Your task to perform on an android device: Play the last video I watched on Youtube Image 0: 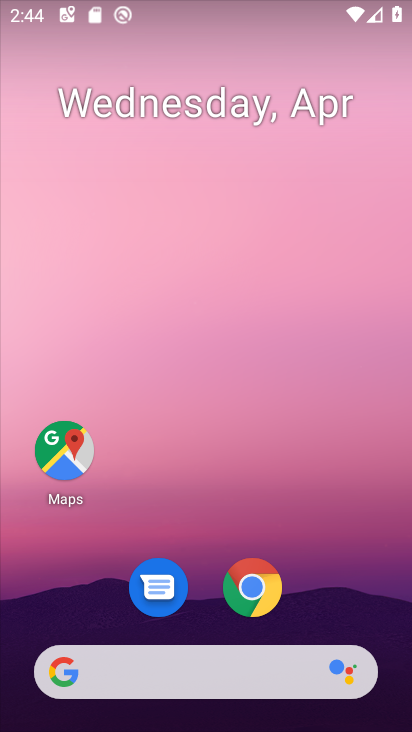
Step 0: drag from (387, 613) to (315, 62)
Your task to perform on an android device: Play the last video I watched on Youtube Image 1: 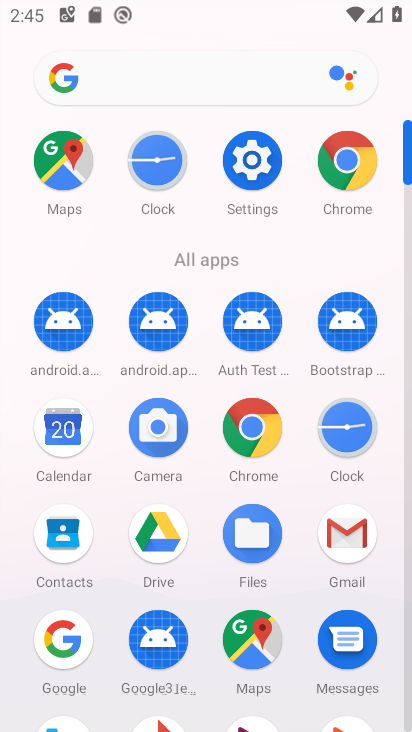
Step 1: click (406, 719)
Your task to perform on an android device: Play the last video I watched on Youtube Image 2: 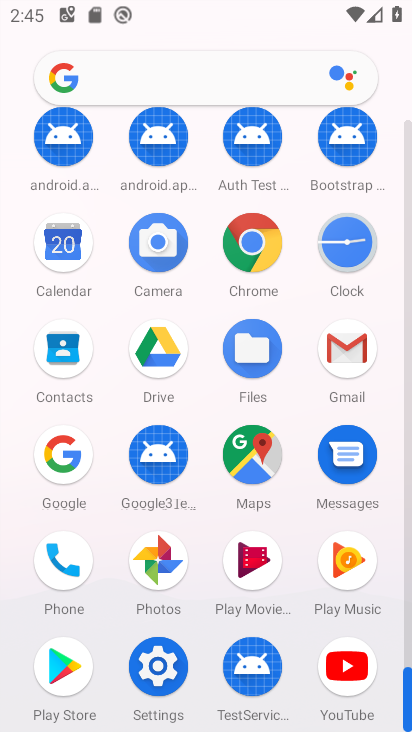
Step 2: click (363, 668)
Your task to perform on an android device: Play the last video I watched on Youtube Image 3: 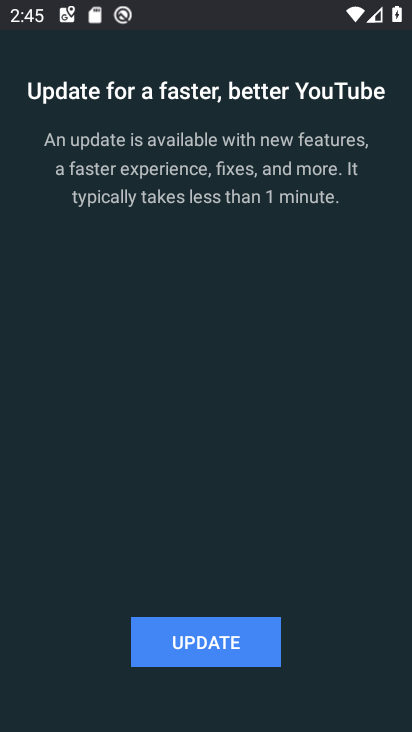
Step 3: click (222, 649)
Your task to perform on an android device: Play the last video I watched on Youtube Image 4: 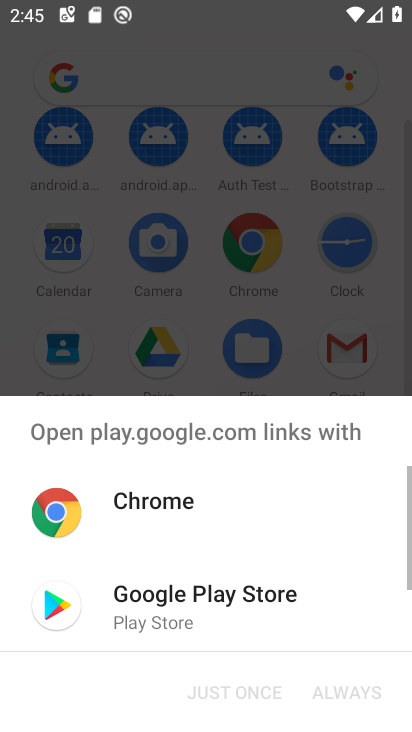
Step 4: click (139, 572)
Your task to perform on an android device: Play the last video I watched on Youtube Image 5: 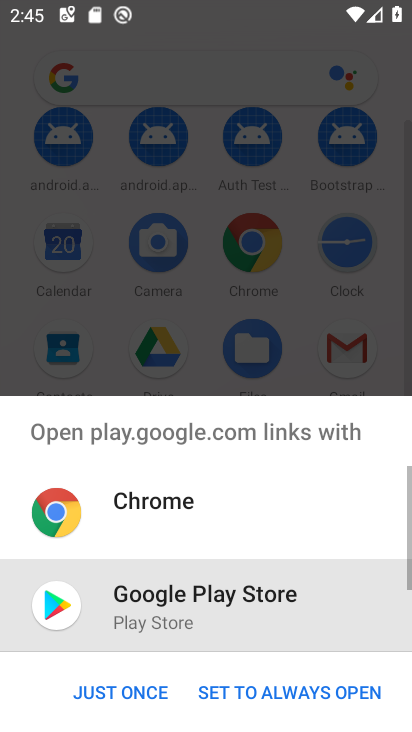
Step 5: click (98, 697)
Your task to perform on an android device: Play the last video I watched on Youtube Image 6: 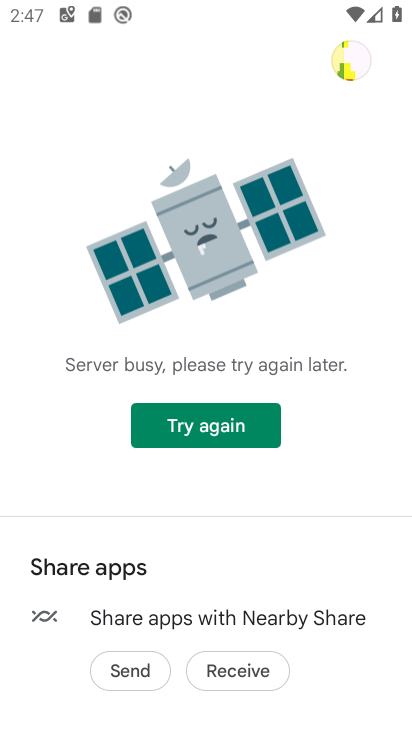
Step 6: task complete